Your task to perform on an android device: toggle priority inbox in the gmail app Image 0: 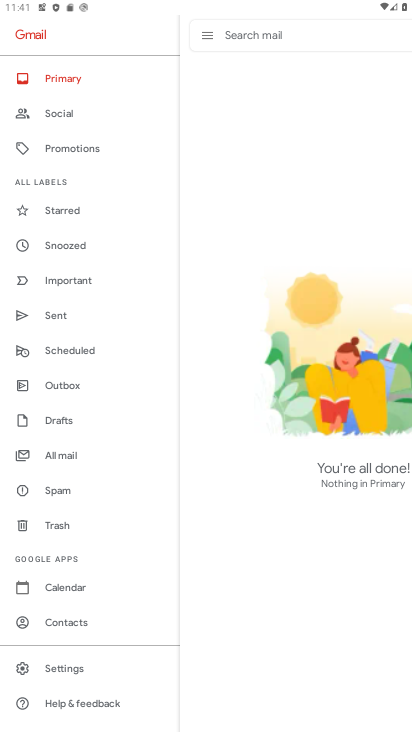
Step 0: press home button
Your task to perform on an android device: toggle priority inbox in the gmail app Image 1: 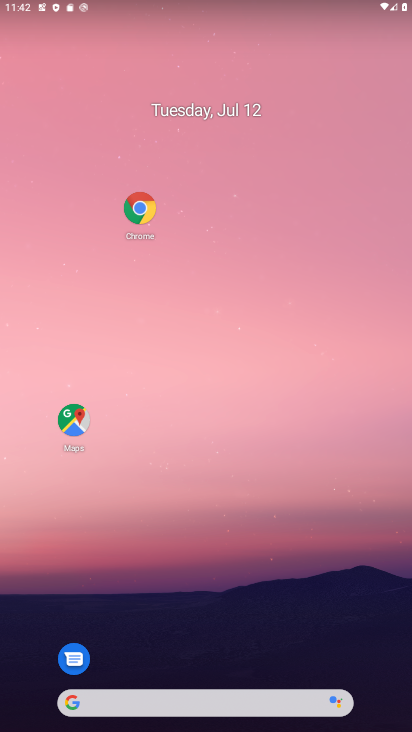
Step 1: drag from (241, 641) to (234, 26)
Your task to perform on an android device: toggle priority inbox in the gmail app Image 2: 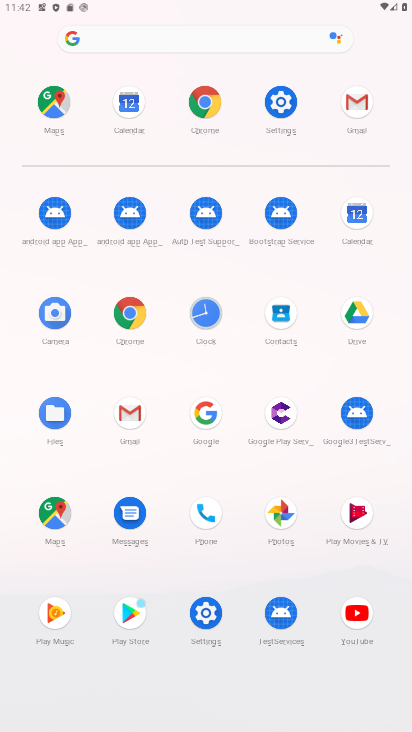
Step 2: click (132, 404)
Your task to perform on an android device: toggle priority inbox in the gmail app Image 3: 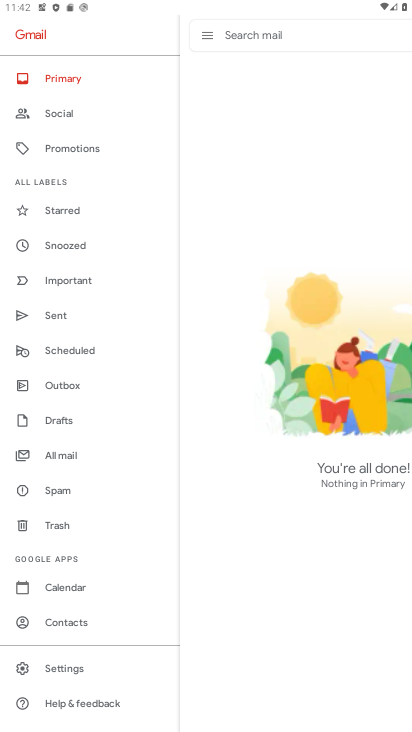
Step 3: click (75, 668)
Your task to perform on an android device: toggle priority inbox in the gmail app Image 4: 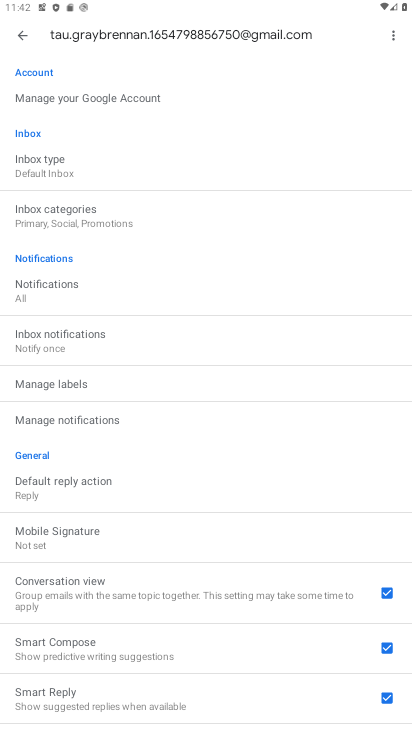
Step 4: click (75, 162)
Your task to perform on an android device: toggle priority inbox in the gmail app Image 5: 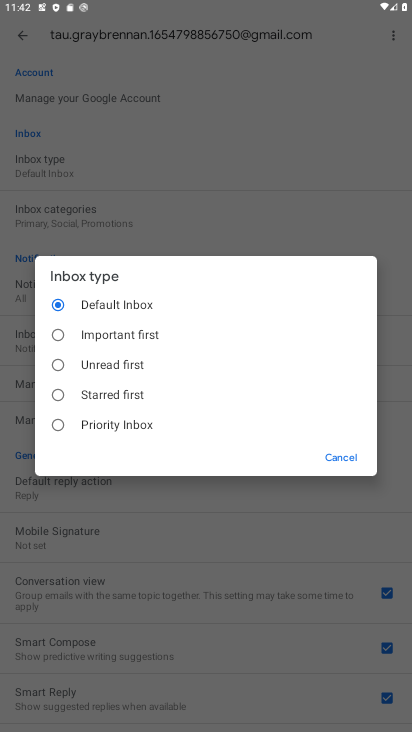
Step 5: click (60, 428)
Your task to perform on an android device: toggle priority inbox in the gmail app Image 6: 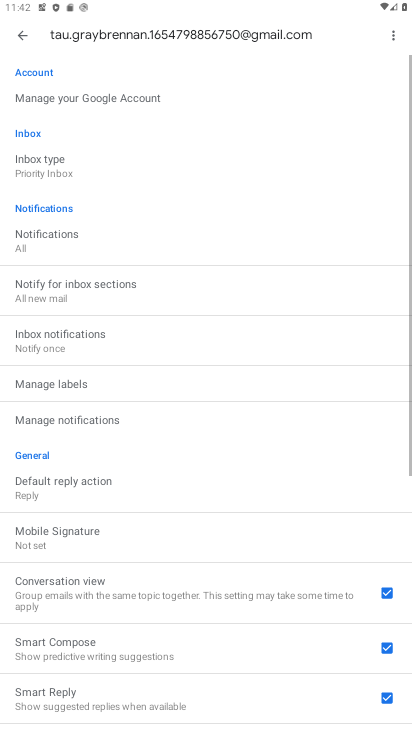
Step 6: task complete